Your task to perform on an android device: What's the weather? Image 0: 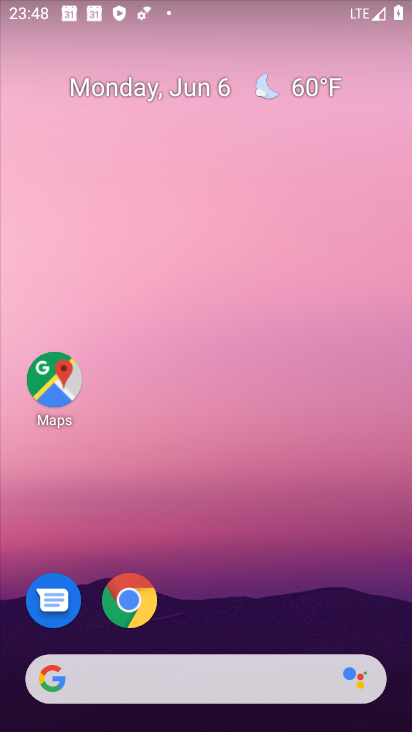
Step 0: drag from (227, 720) to (222, 93)
Your task to perform on an android device: What's the weather? Image 1: 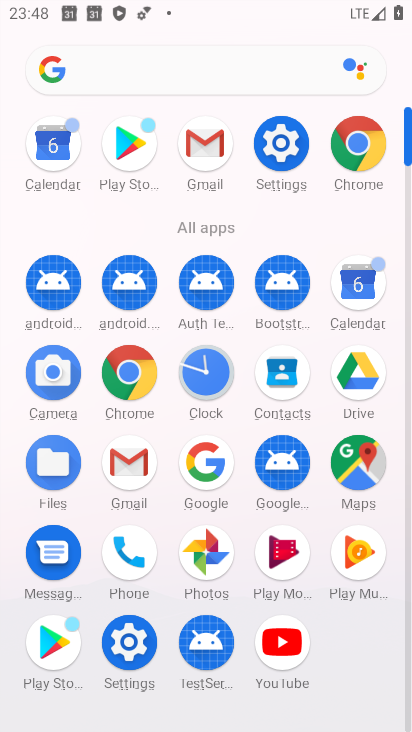
Step 1: click (202, 458)
Your task to perform on an android device: What's the weather? Image 2: 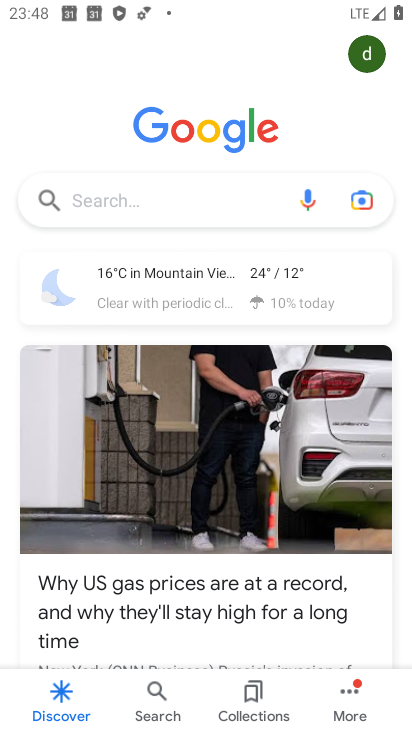
Step 2: click (196, 278)
Your task to perform on an android device: What's the weather? Image 3: 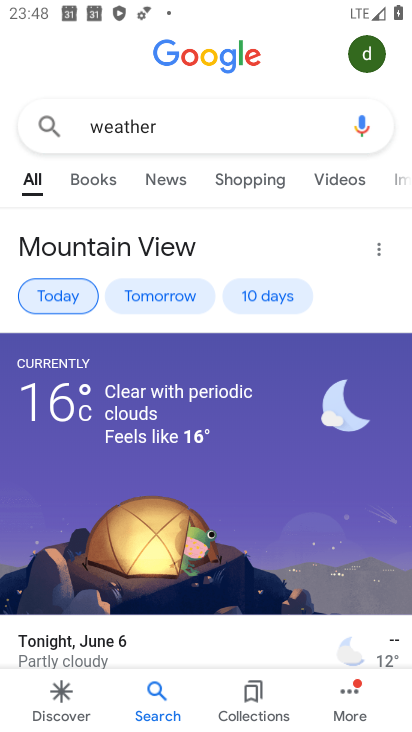
Step 3: click (79, 295)
Your task to perform on an android device: What's the weather? Image 4: 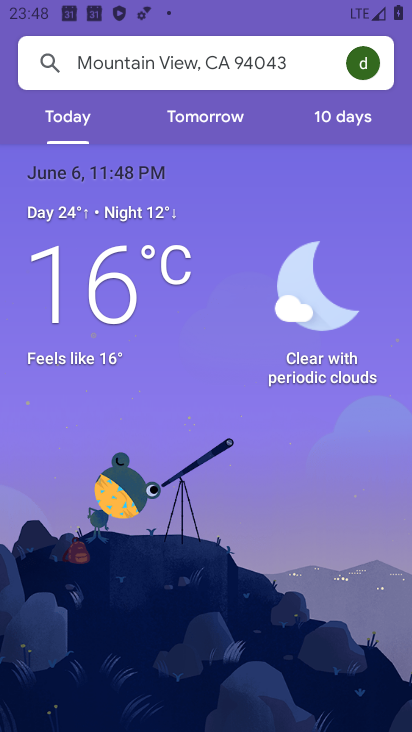
Step 4: task complete